Your task to perform on an android device: Open Yahoo.com Image 0: 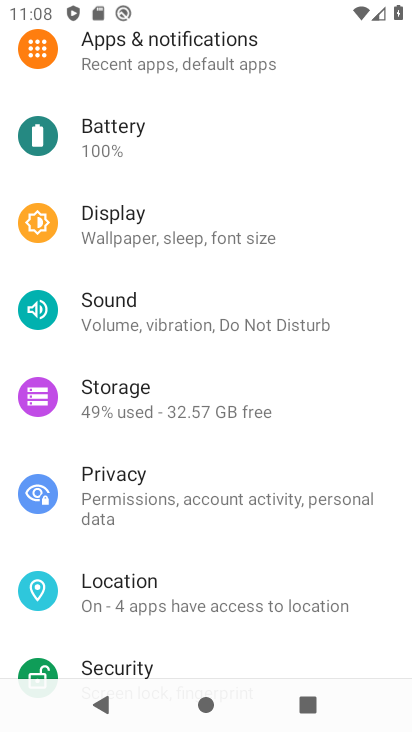
Step 0: press home button
Your task to perform on an android device: Open Yahoo.com Image 1: 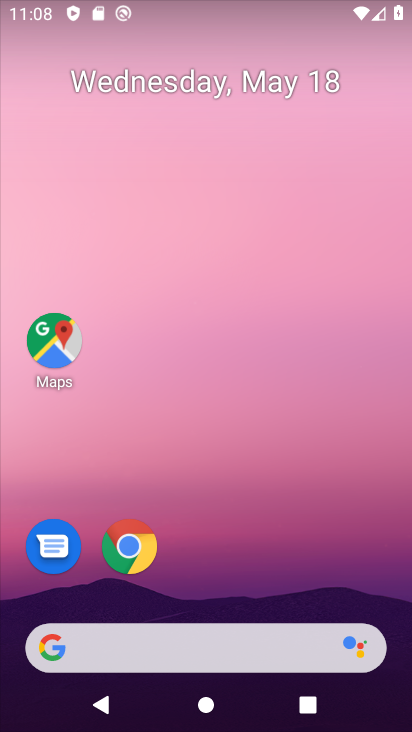
Step 1: click (150, 545)
Your task to perform on an android device: Open Yahoo.com Image 2: 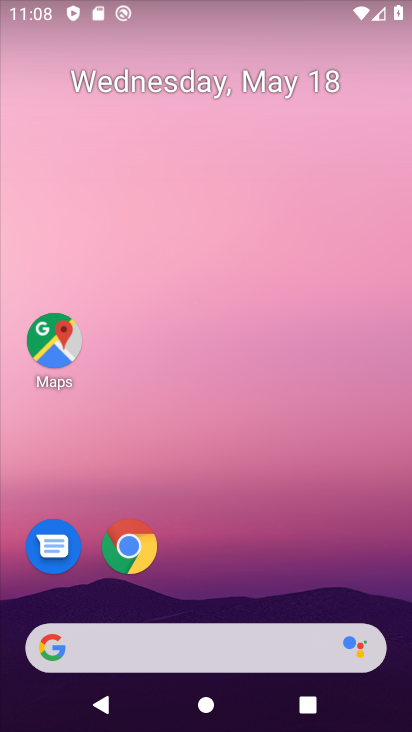
Step 2: click (150, 545)
Your task to perform on an android device: Open Yahoo.com Image 3: 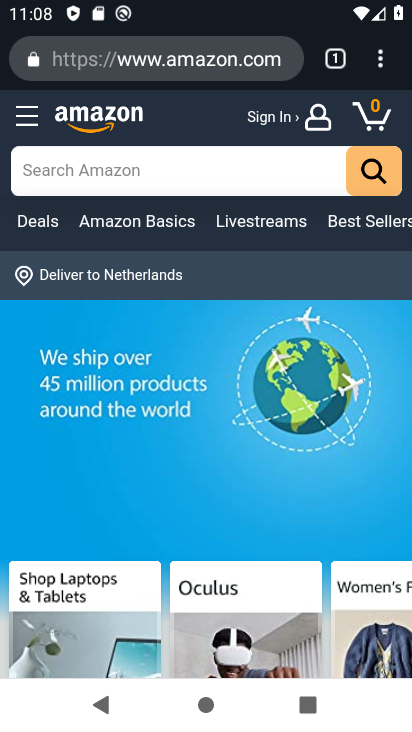
Step 3: click (145, 41)
Your task to perform on an android device: Open Yahoo.com Image 4: 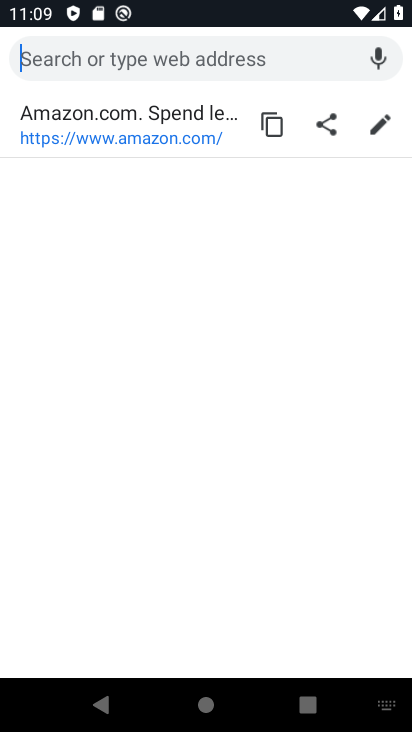
Step 4: type "Yahoo.com"
Your task to perform on an android device: Open Yahoo.com Image 5: 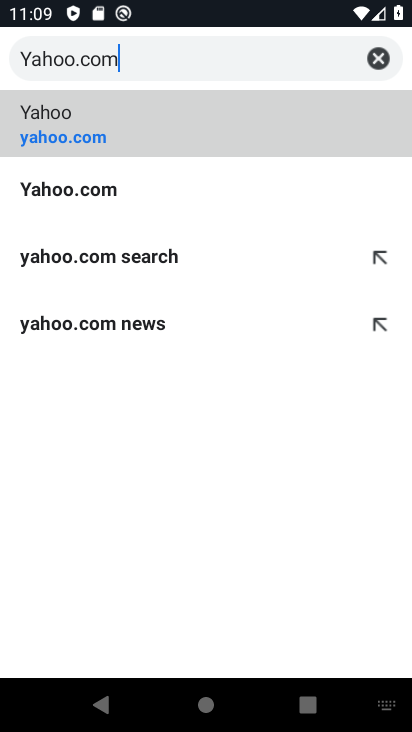
Step 5: click (81, 107)
Your task to perform on an android device: Open Yahoo.com Image 6: 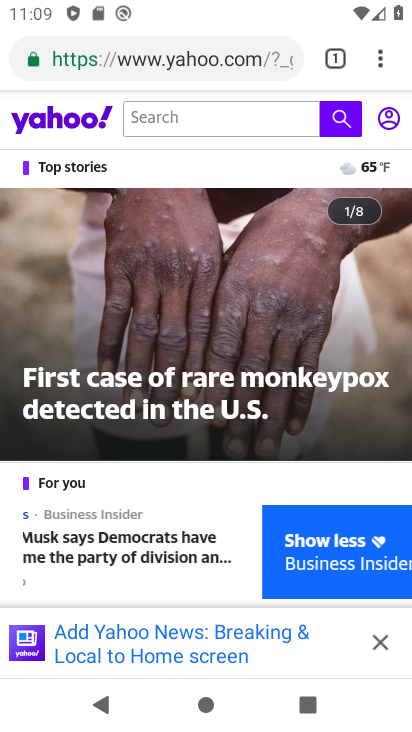
Step 6: task complete